Your task to perform on an android device: Go to location settings Image 0: 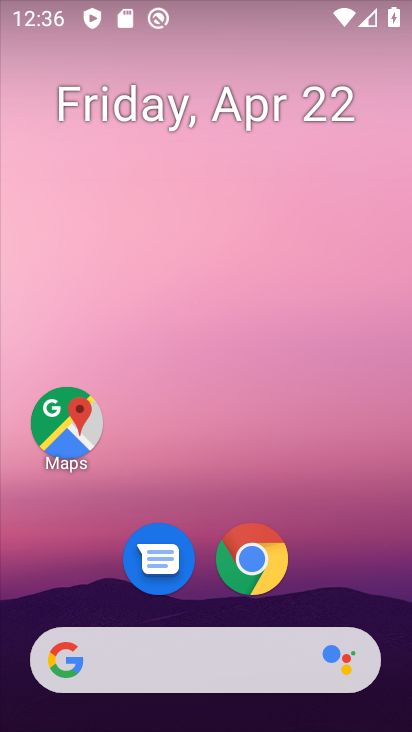
Step 0: click (275, 78)
Your task to perform on an android device: Go to location settings Image 1: 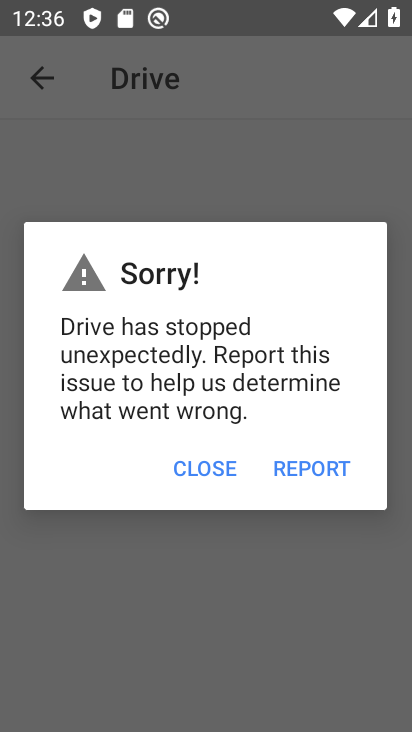
Step 1: press home button
Your task to perform on an android device: Go to location settings Image 2: 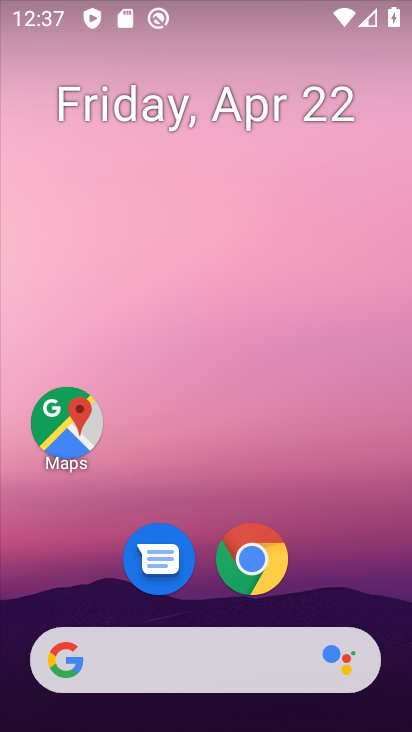
Step 2: drag from (371, 579) to (232, 38)
Your task to perform on an android device: Go to location settings Image 3: 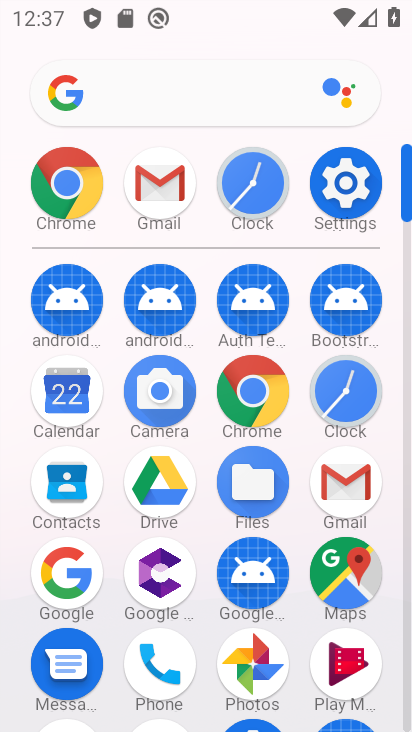
Step 3: click (337, 173)
Your task to perform on an android device: Go to location settings Image 4: 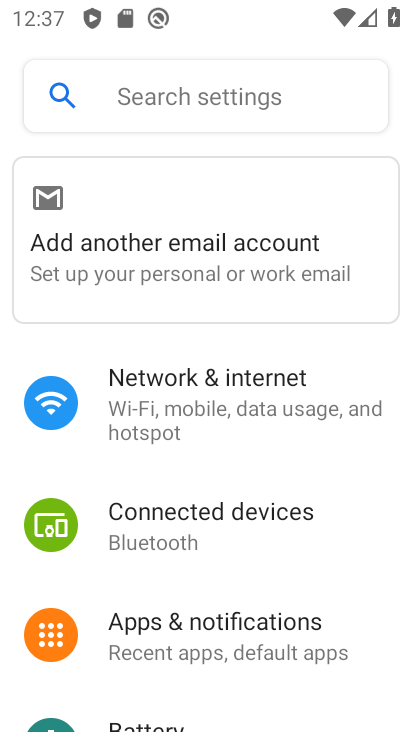
Step 4: drag from (202, 628) to (272, 222)
Your task to perform on an android device: Go to location settings Image 5: 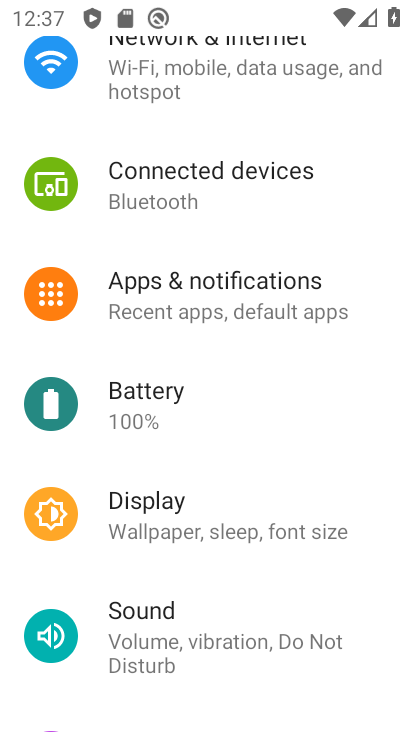
Step 5: drag from (211, 609) to (281, 161)
Your task to perform on an android device: Go to location settings Image 6: 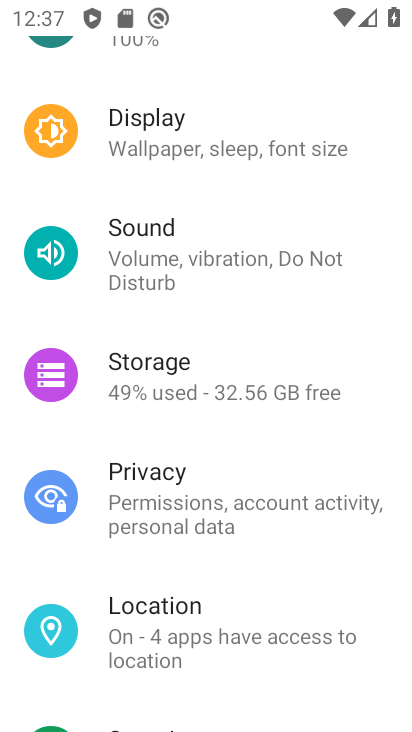
Step 6: click (239, 659)
Your task to perform on an android device: Go to location settings Image 7: 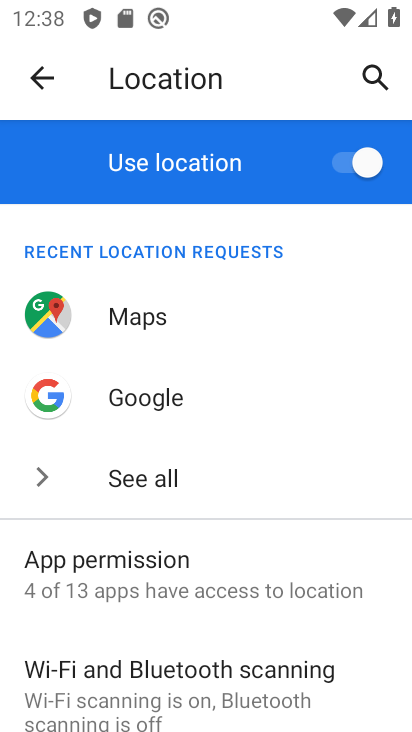
Step 7: task complete